Your task to perform on an android device: find snoozed emails in the gmail app Image 0: 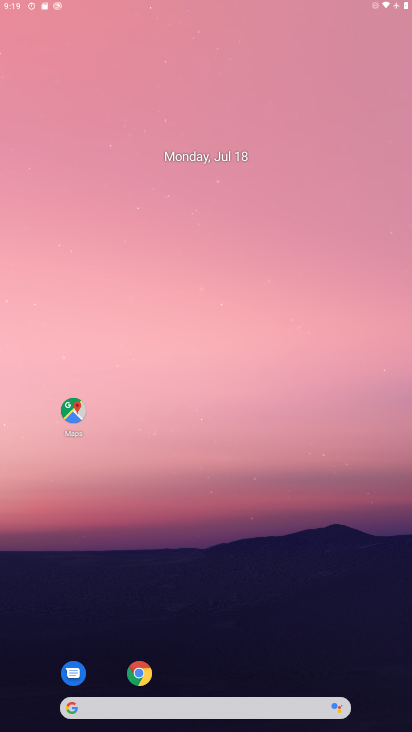
Step 0: press home button
Your task to perform on an android device: find snoozed emails in the gmail app Image 1: 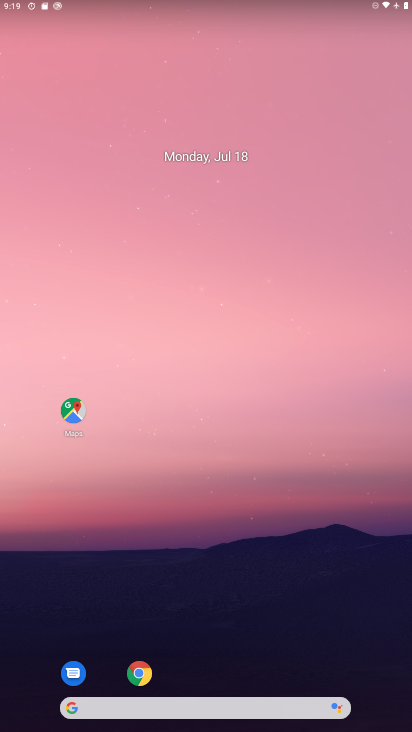
Step 1: drag from (236, 649) to (226, 105)
Your task to perform on an android device: find snoozed emails in the gmail app Image 2: 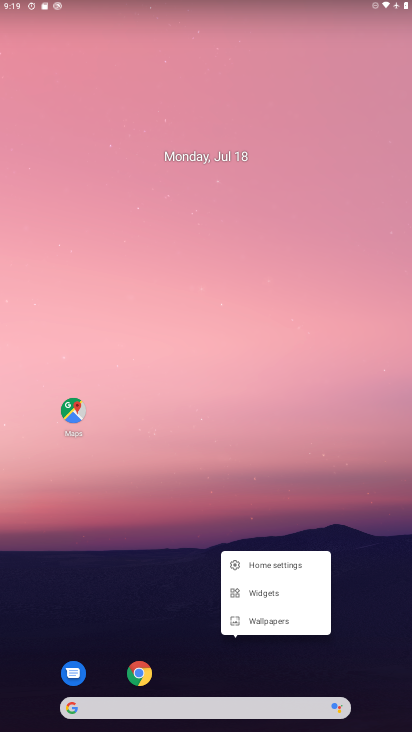
Step 2: drag from (183, 631) to (202, 27)
Your task to perform on an android device: find snoozed emails in the gmail app Image 3: 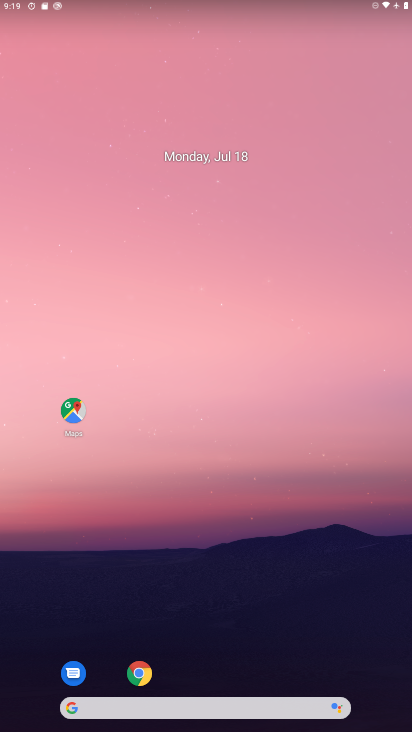
Step 3: drag from (229, 649) to (188, 93)
Your task to perform on an android device: find snoozed emails in the gmail app Image 4: 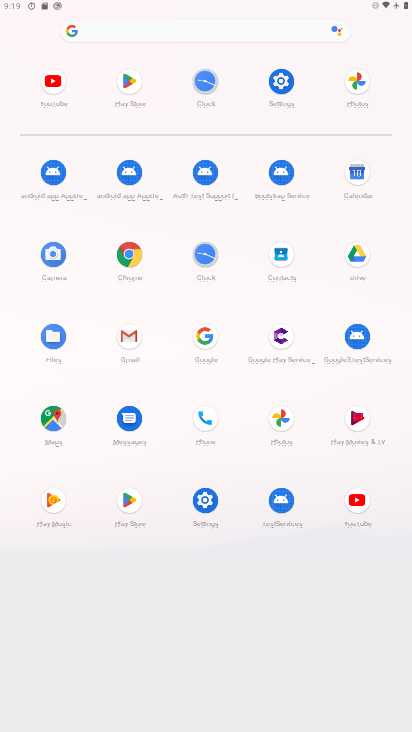
Step 4: click (132, 344)
Your task to perform on an android device: find snoozed emails in the gmail app Image 5: 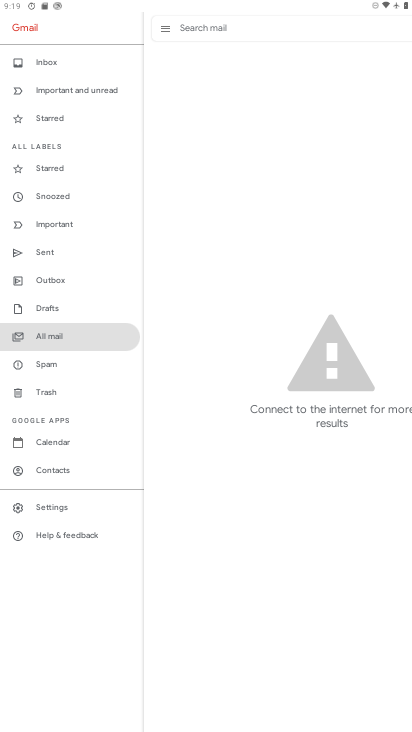
Step 5: click (50, 198)
Your task to perform on an android device: find snoozed emails in the gmail app Image 6: 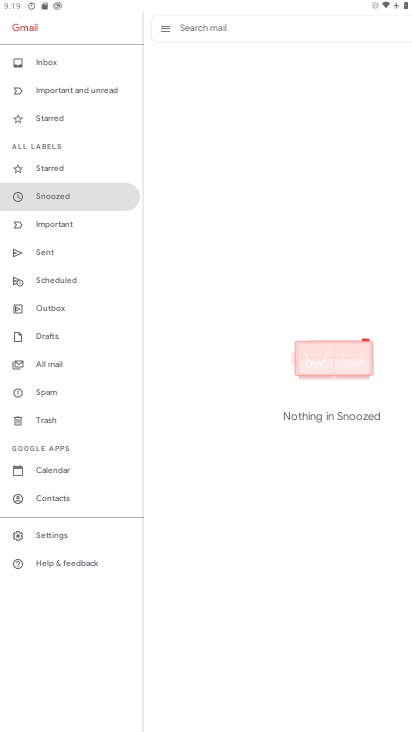
Step 6: task complete